Your task to perform on an android device: Open accessibility settings Image 0: 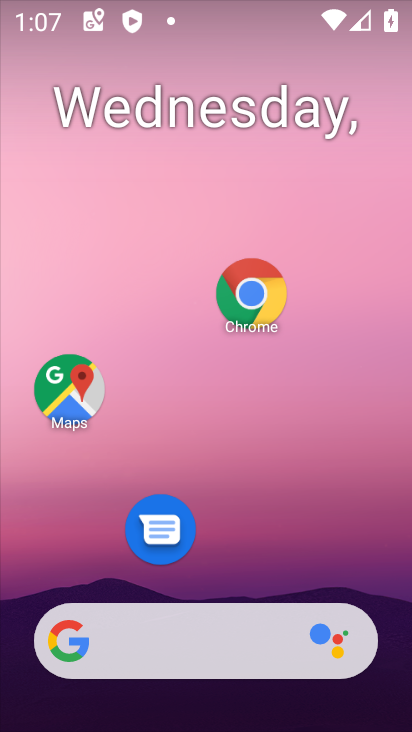
Step 0: click (275, 188)
Your task to perform on an android device: Open accessibility settings Image 1: 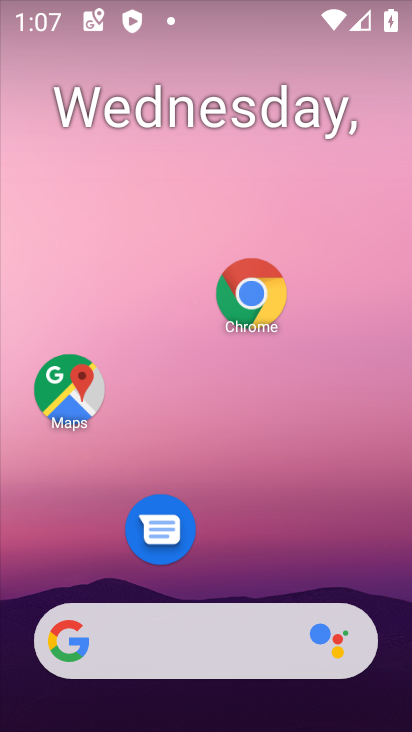
Step 1: drag from (230, 555) to (283, 47)
Your task to perform on an android device: Open accessibility settings Image 2: 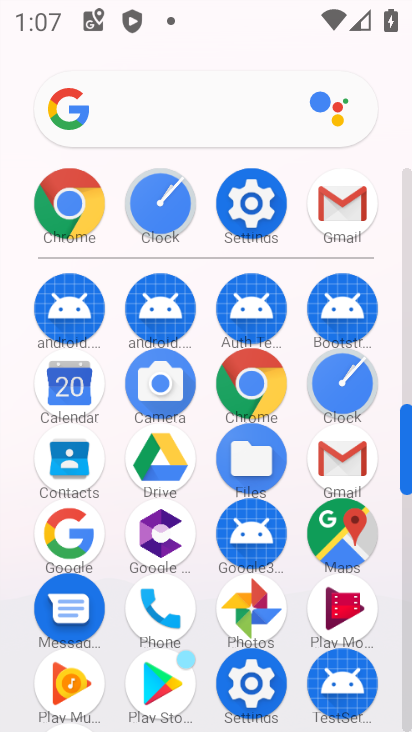
Step 2: click (260, 205)
Your task to perform on an android device: Open accessibility settings Image 3: 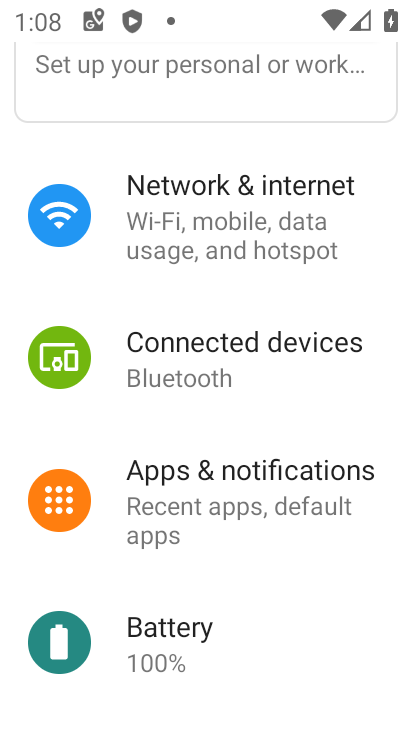
Step 3: drag from (259, 492) to (285, 281)
Your task to perform on an android device: Open accessibility settings Image 4: 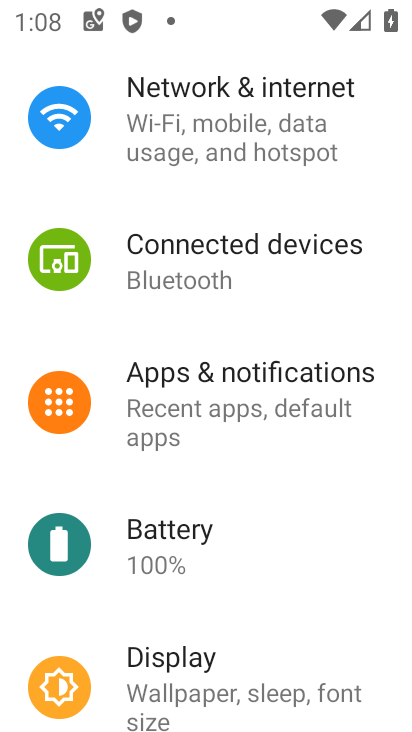
Step 4: drag from (223, 380) to (232, 267)
Your task to perform on an android device: Open accessibility settings Image 5: 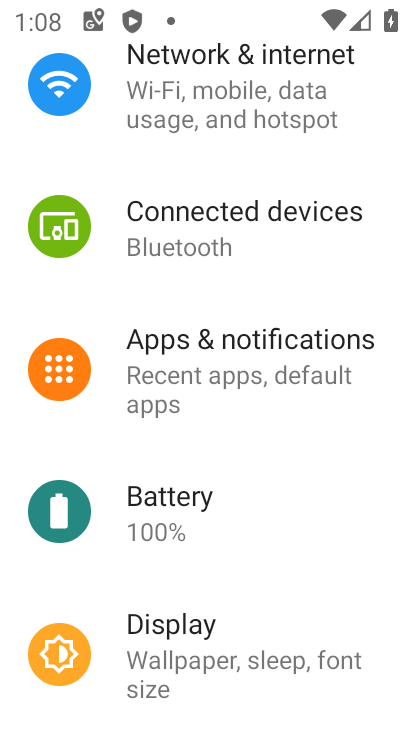
Step 5: drag from (199, 499) to (246, 312)
Your task to perform on an android device: Open accessibility settings Image 6: 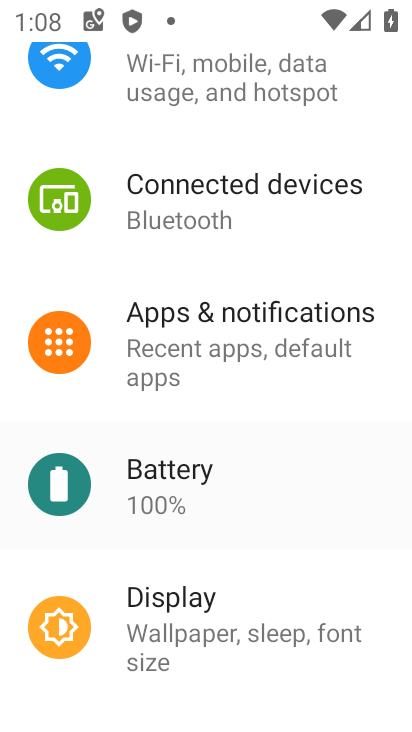
Step 6: click (283, 196)
Your task to perform on an android device: Open accessibility settings Image 7: 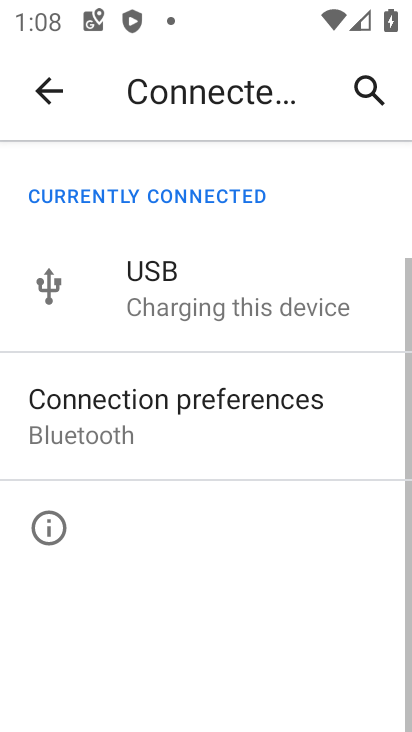
Step 7: click (47, 95)
Your task to perform on an android device: Open accessibility settings Image 8: 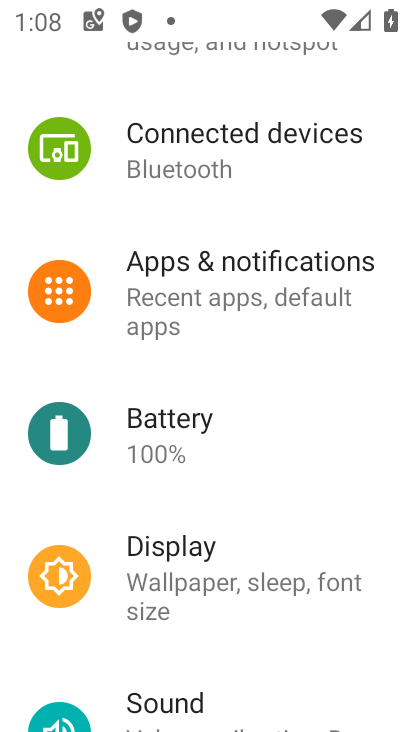
Step 8: drag from (203, 571) to (232, 327)
Your task to perform on an android device: Open accessibility settings Image 9: 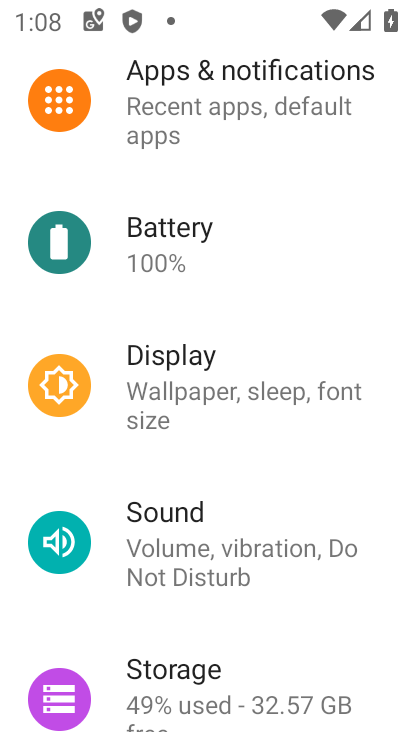
Step 9: drag from (271, 239) to (312, 94)
Your task to perform on an android device: Open accessibility settings Image 10: 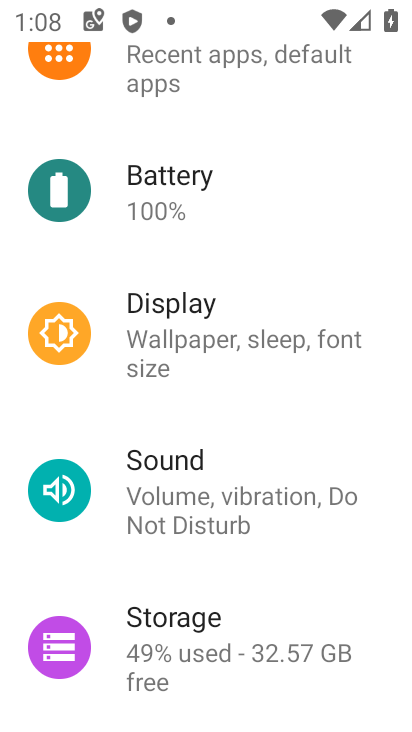
Step 10: drag from (216, 591) to (242, 160)
Your task to perform on an android device: Open accessibility settings Image 11: 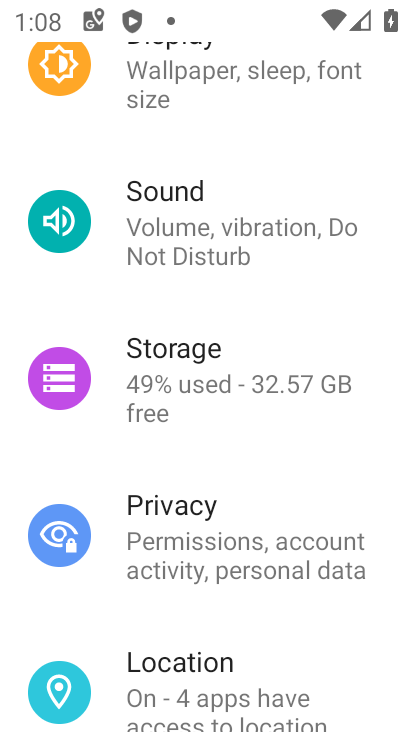
Step 11: drag from (266, 391) to (264, 121)
Your task to perform on an android device: Open accessibility settings Image 12: 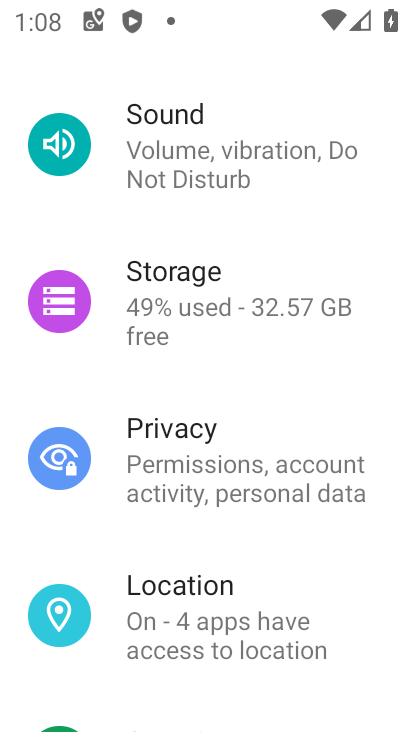
Step 12: drag from (252, 415) to (261, 105)
Your task to perform on an android device: Open accessibility settings Image 13: 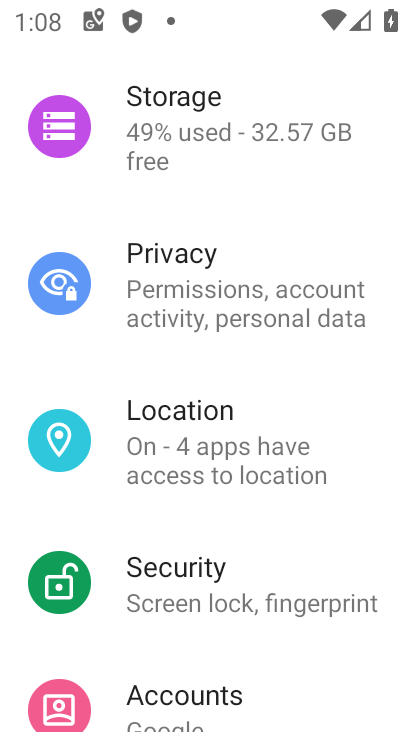
Step 13: drag from (217, 523) to (239, 90)
Your task to perform on an android device: Open accessibility settings Image 14: 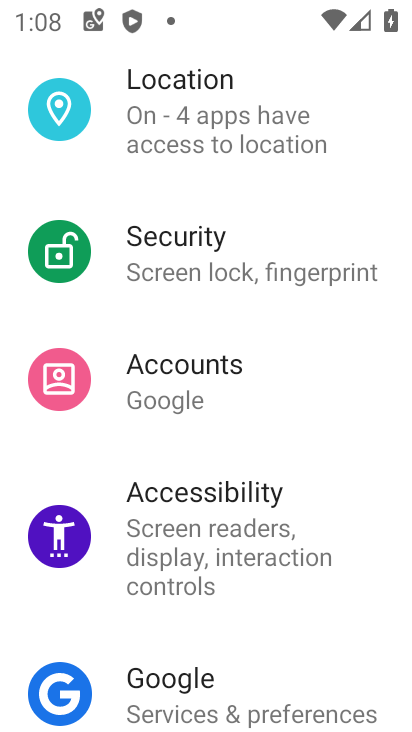
Step 14: drag from (192, 586) to (248, 170)
Your task to perform on an android device: Open accessibility settings Image 15: 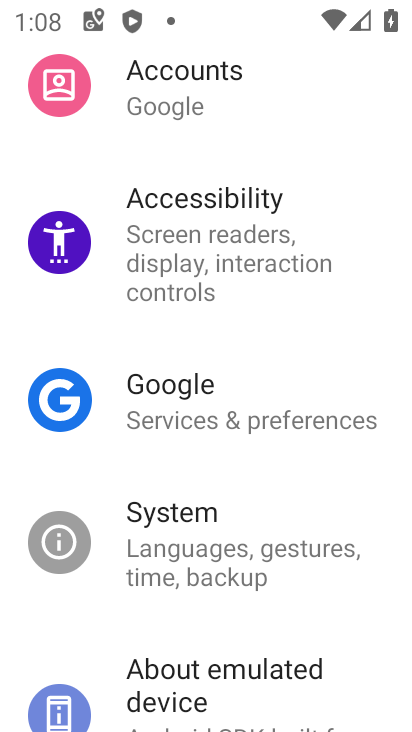
Step 15: click (211, 237)
Your task to perform on an android device: Open accessibility settings Image 16: 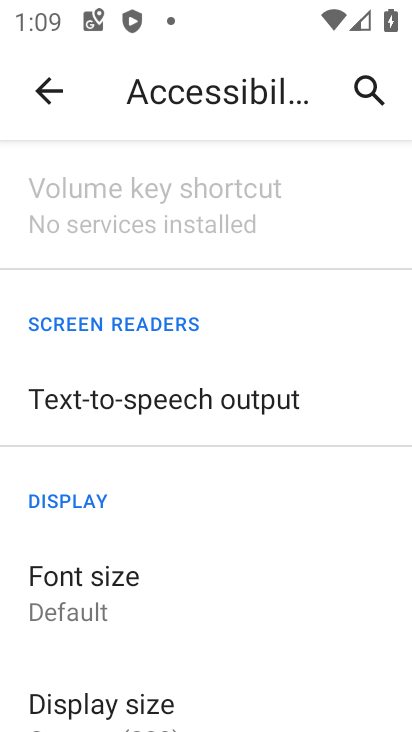
Step 16: task complete